Your task to perform on an android device: turn on the 24-hour format for clock Image 0: 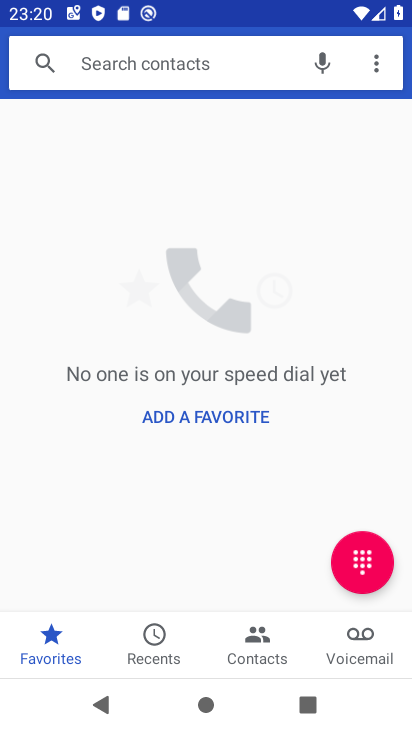
Step 0: press home button
Your task to perform on an android device: turn on the 24-hour format for clock Image 1: 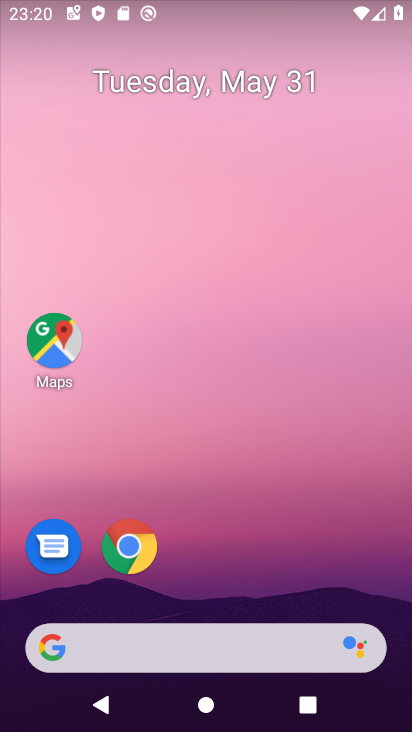
Step 1: drag from (281, 590) to (250, 227)
Your task to perform on an android device: turn on the 24-hour format for clock Image 2: 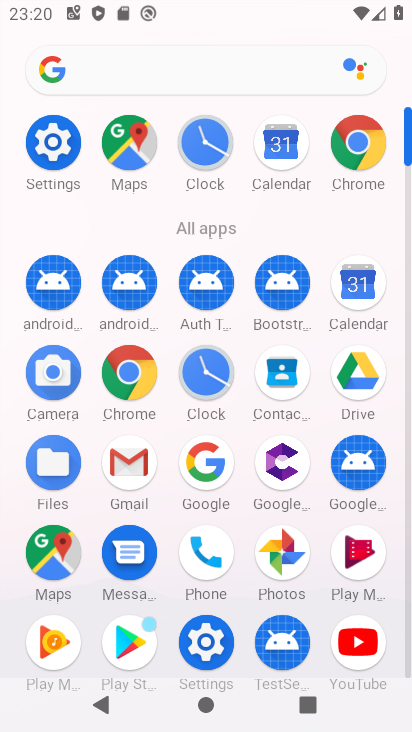
Step 2: click (197, 163)
Your task to perform on an android device: turn on the 24-hour format for clock Image 3: 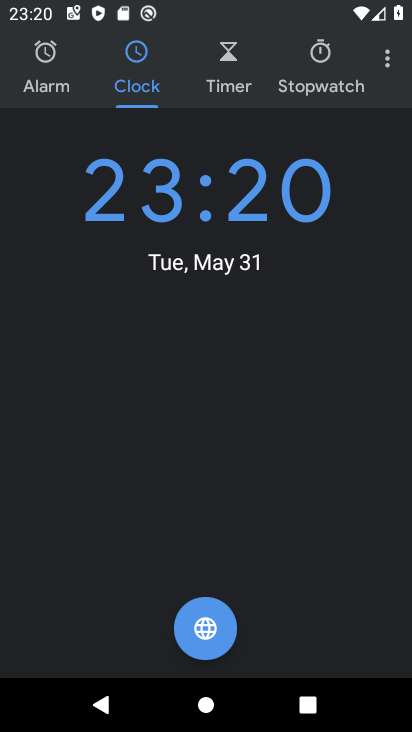
Step 3: click (386, 92)
Your task to perform on an android device: turn on the 24-hour format for clock Image 4: 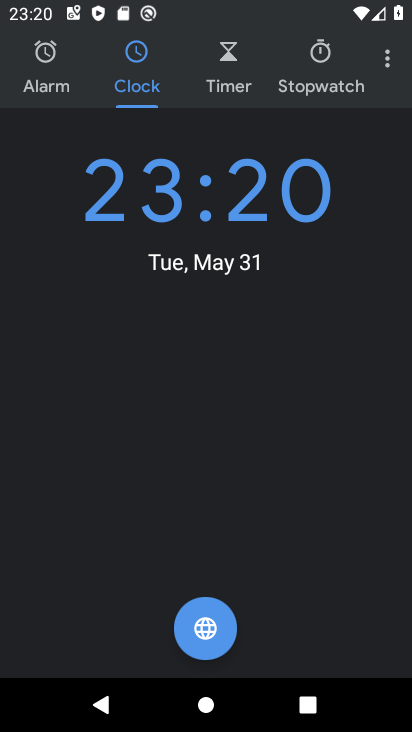
Step 4: click (389, 74)
Your task to perform on an android device: turn on the 24-hour format for clock Image 5: 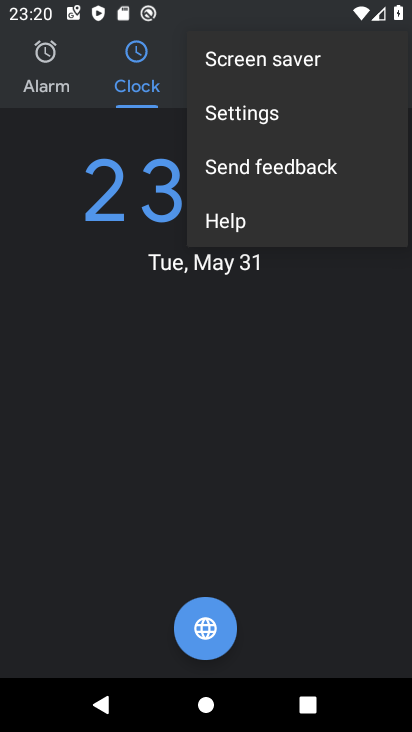
Step 5: click (338, 104)
Your task to perform on an android device: turn on the 24-hour format for clock Image 6: 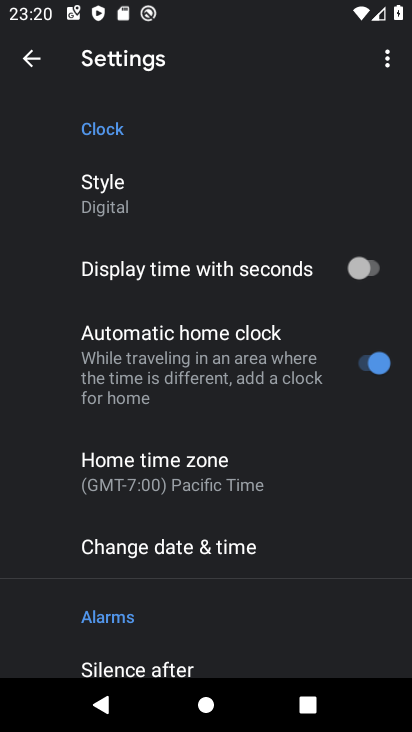
Step 6: drag from (281, 515) to (252, 257)
Your task to perform on an android device: turn on the 24-hour format for clock Image 7: 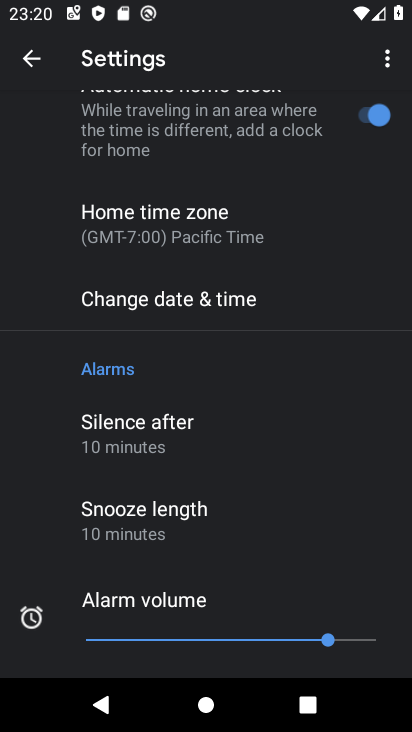
Step 7: click (251, 317)
Your task to perform on an android device: turn on the 24-hour format for clock Image 8: 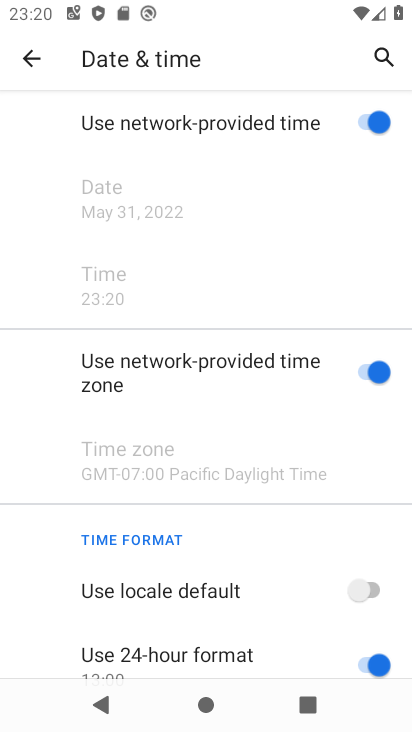
Step 8: task complete